Your task to perform on an android device: Search for "apple airpods pro" on bestbuy, select the first entry, add it to the cart, then select checkout. Image 0: 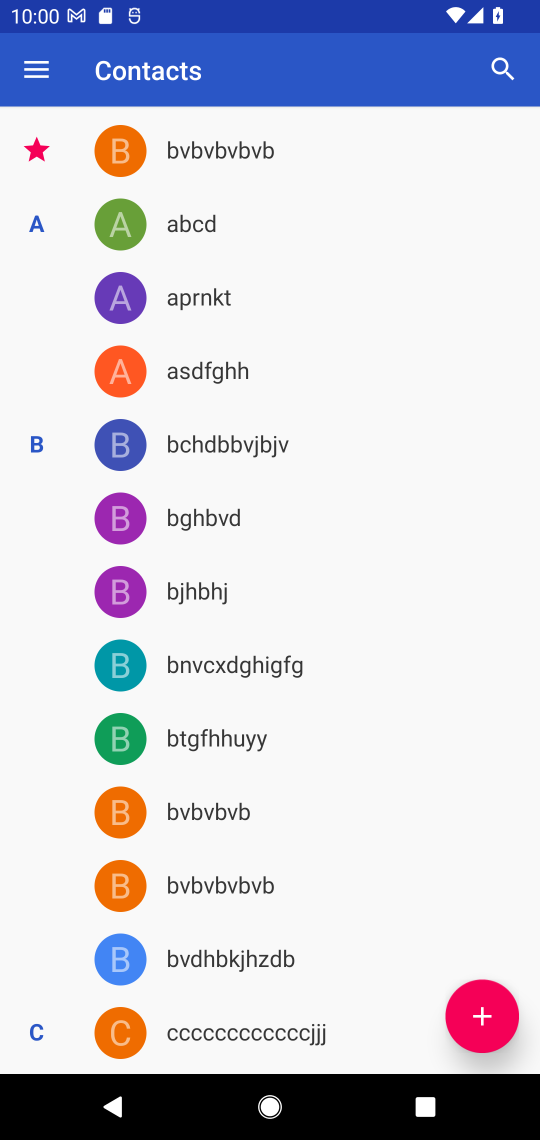
Step 0: press home button
Your task to perform on an android device: Search for "apple airpods pro" on bestbuy, select the first entry, add it to the cart, then select checkout. Image 1: 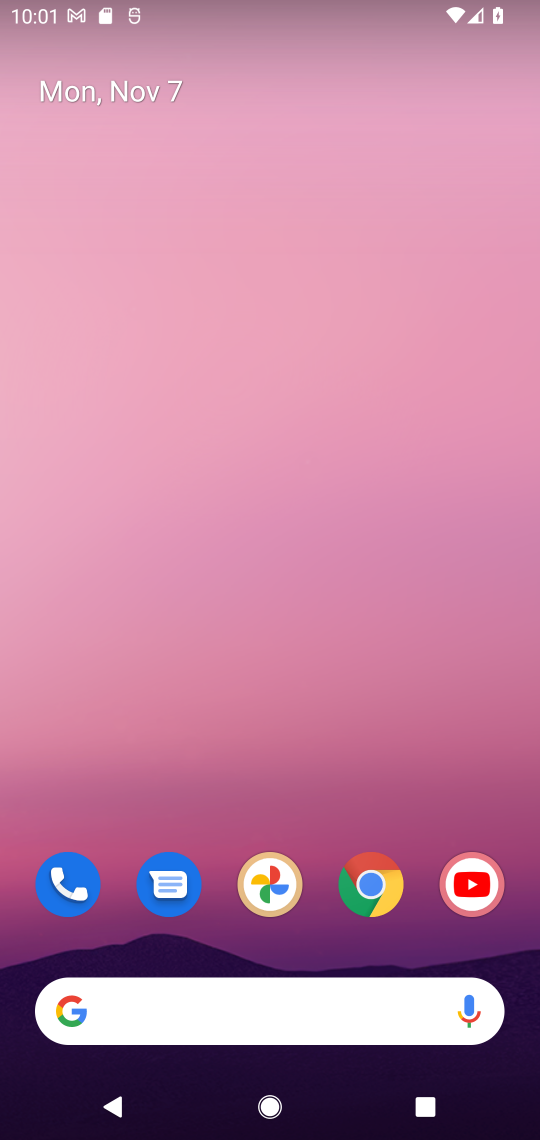
Step 1: click (398, 878)
Your task to perform on an android device: Search for "apple airpods pro" on bestbuy, select the first entry, add it to the cart, then select checkout. Image 2: 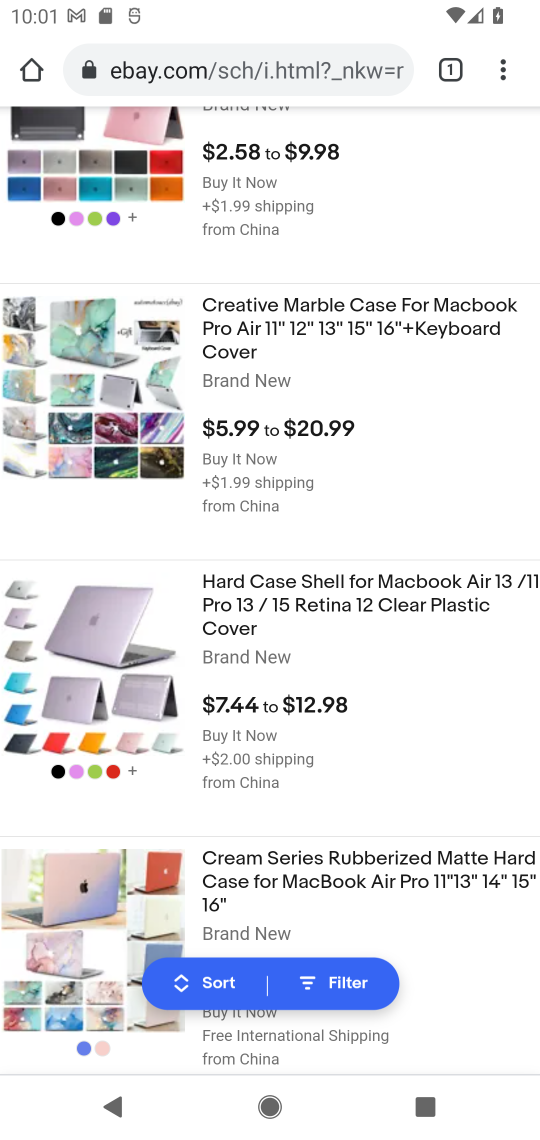
Step 2: click (27, 72)
Your task to perform on an android device: Search for "apple airpods pro" on bestbuy, select the first entry, add it to the cart, then select checkout. Image 3: 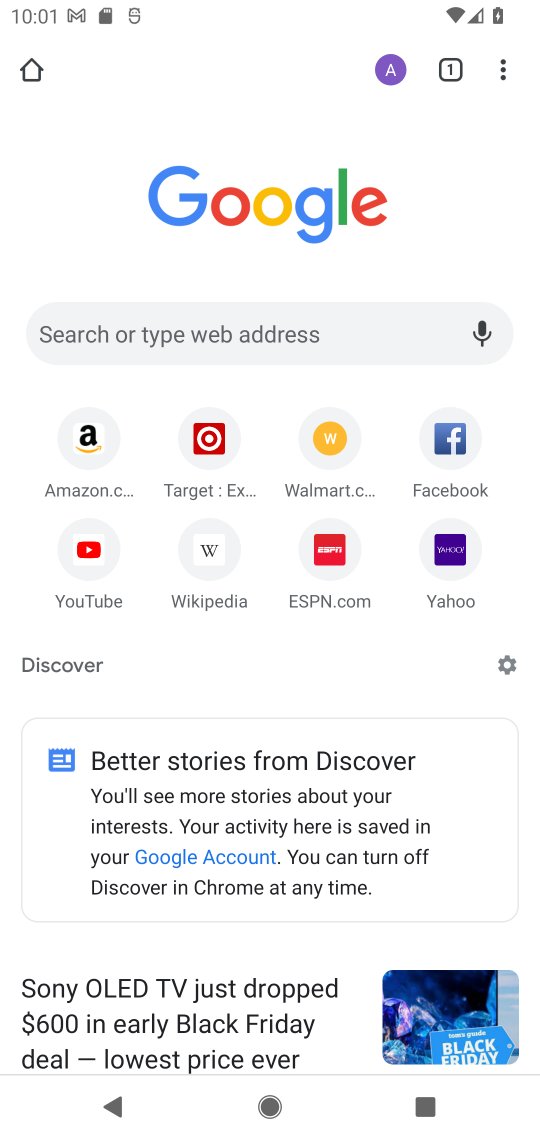
Step 3: click (241, 348)
Your task to perform on an android device: Search for "apple airpods pro" on bestbuy, select the first entry, add it to the cart, then select checkout. Image 4: 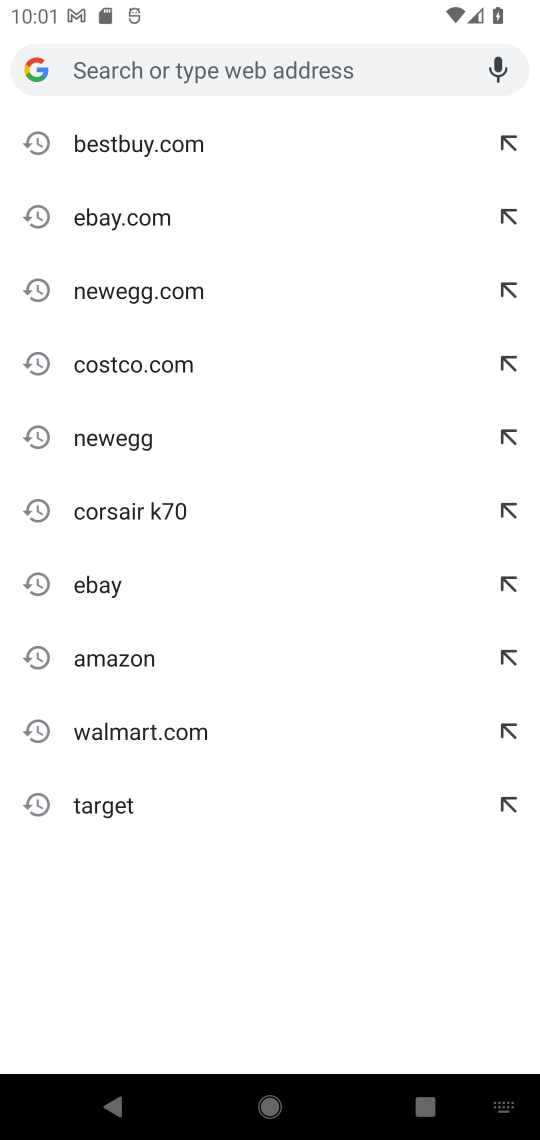
Step 4: click (186, 144)
Your task to perform on an android device: Search for "apple airpods pro" on bestbuy, select the first entry, add it to the cart, then select checkout. Image 5: 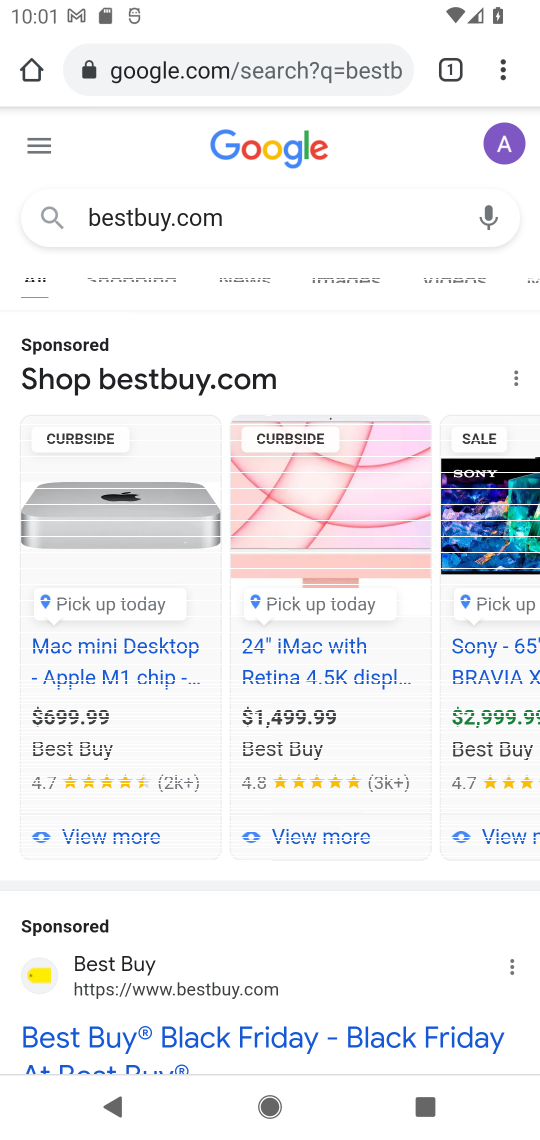
Step 5: click (219, 982)
Your task to perform on an android device: Search for "apple airpods pro" on bestbuy, select the first entry, add it to the cart, then select checkout. Image 6: 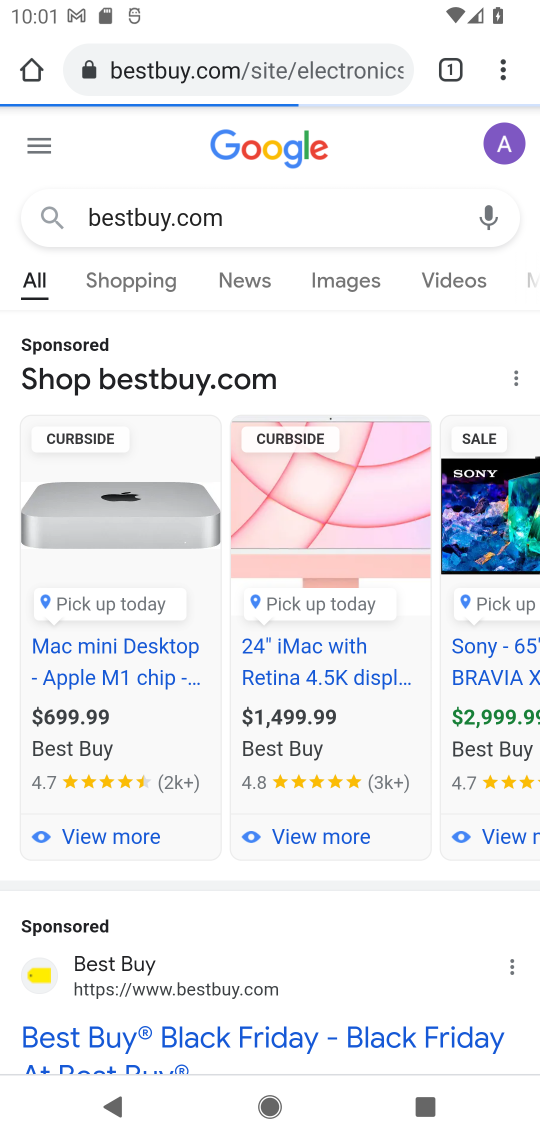
Step 6: click (140, 981)
Your task to perform on an android device: Search for "apple airpods pro" on bestbuy, select the first entry, add it to the cart, then select checkout. Image 7: 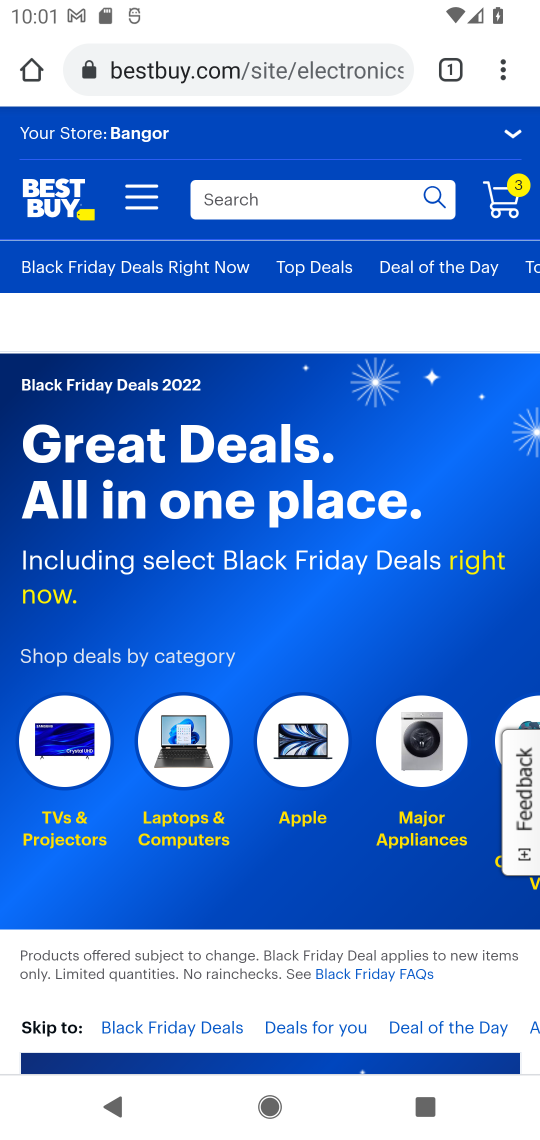
Step 7: click (321, 190)
Your task to perform on an android device: Search for "apple airpods pro" on bestbuy, select the first entry, add it to the cart, then select checkout. Image 8: 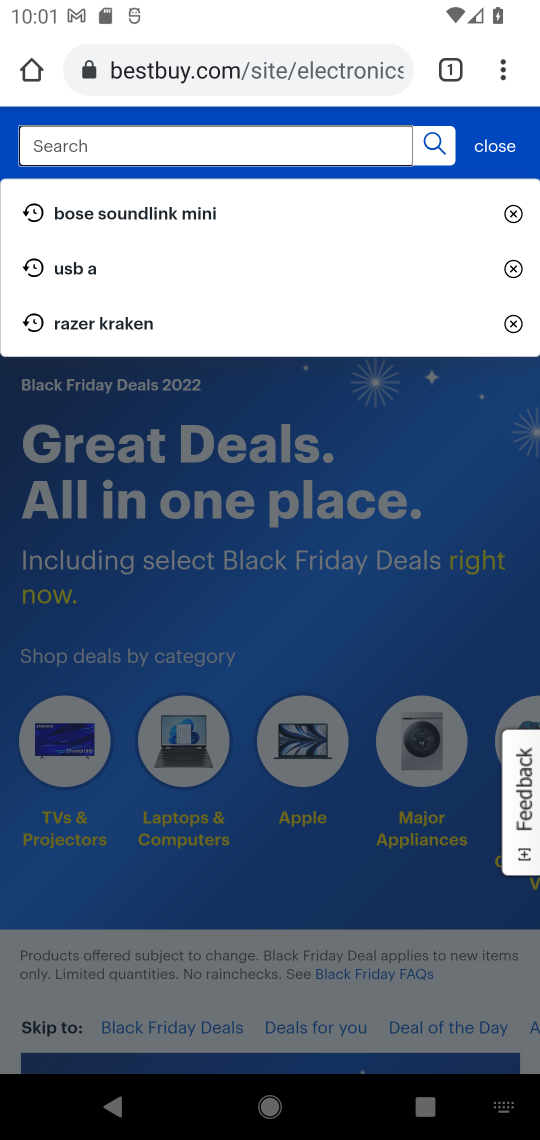
Step 8: type "apple airpods pro"
Your task to perform on an android device: Search for "apple airpods pro" on bestbuy, select the first entry, add it to the cart, then select checkout. Image 9: 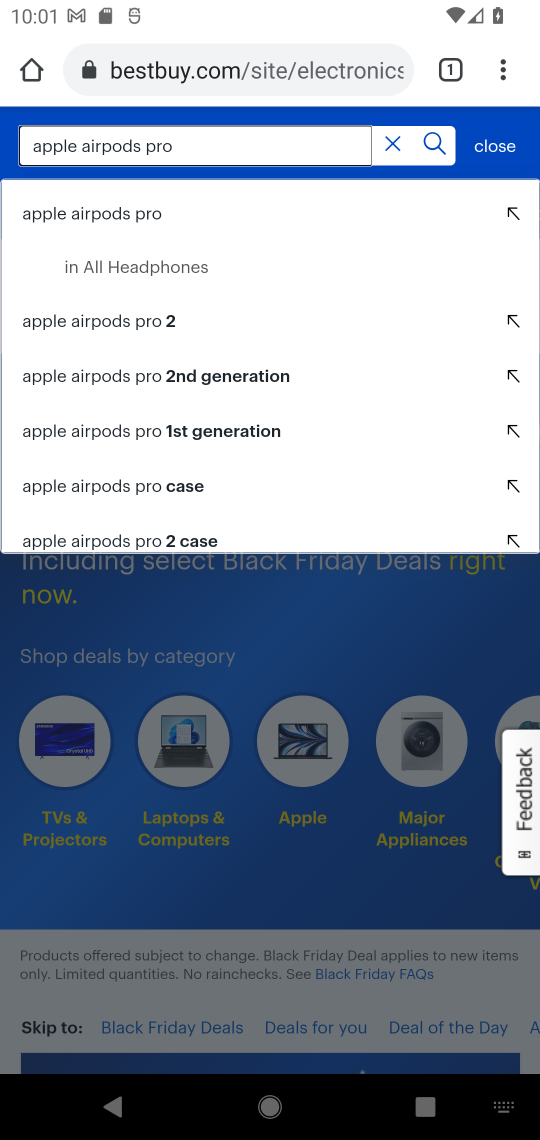
Step 9: click (141, 213)
Your task to perform on an android device: Search for "apple airpods pro" on bestbuy, select the first entry, add it to the cart, then select checkout. Image 10: 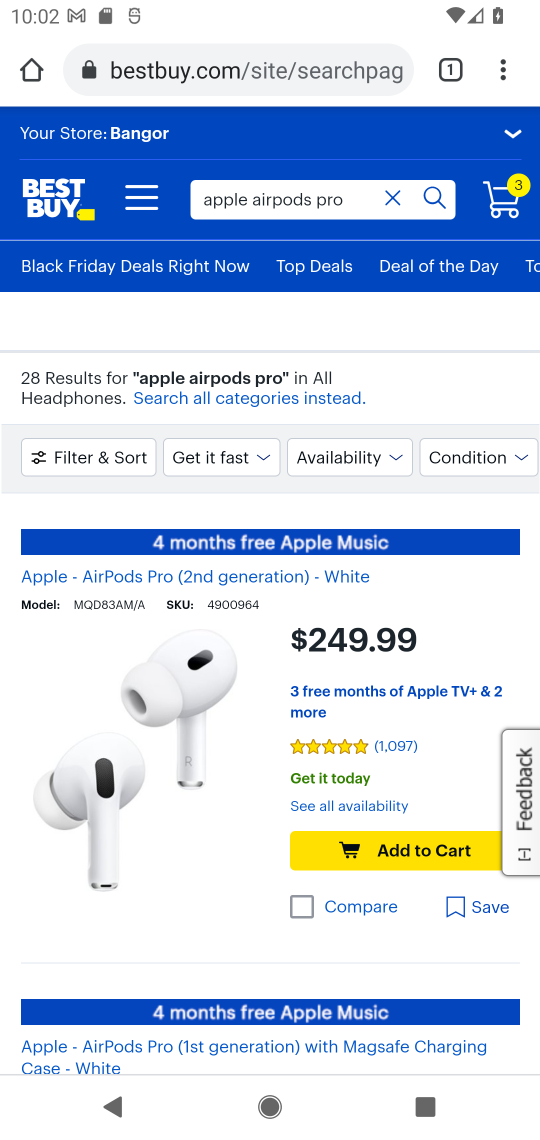
Step 10: click (161, 751)
Your task to perform on an android device: Search for "apple airpods pro" on bestbuy, select the first entry, add it to the cart, then select checkout. Image 11: 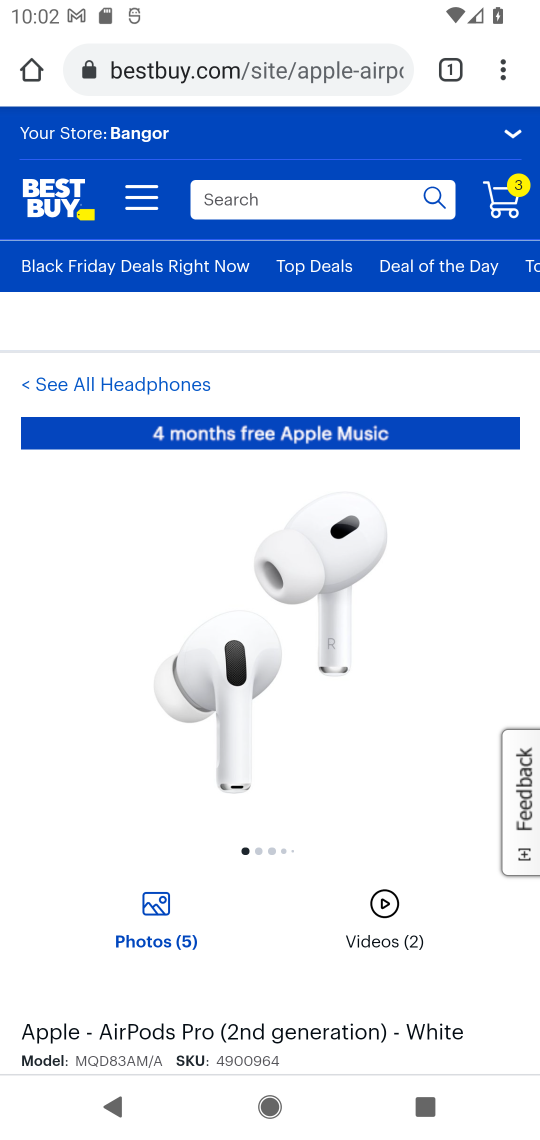
Step 11: drag from (277, 809) to (280, 260)
Your task to perform on an android device: Search for "apple airpods pro" on bestbuy, select the first entry, add it to the cart, then select checkout. Image 12: 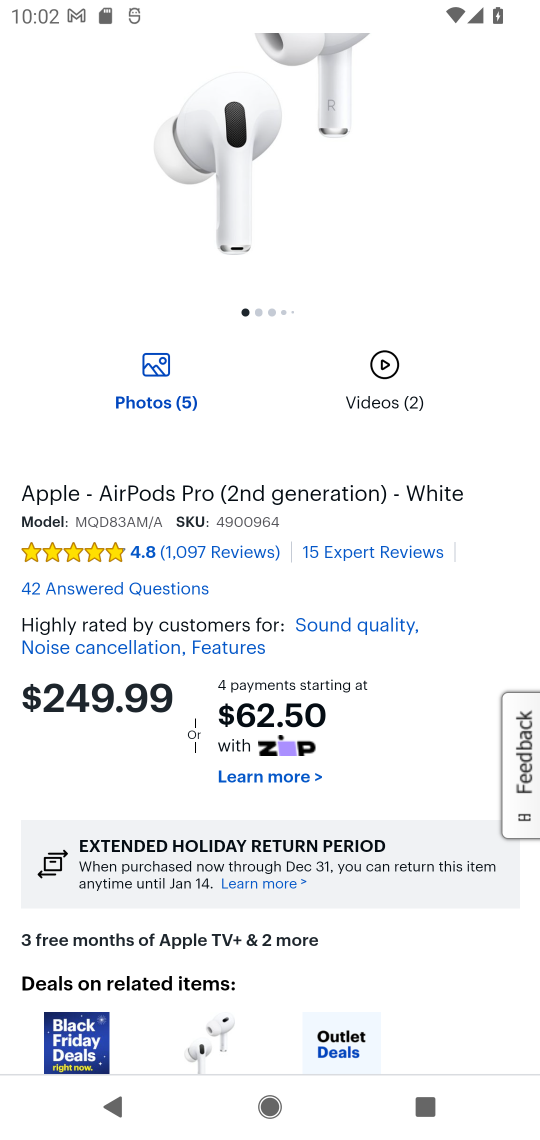
Step 12: drag from (414, 971) to (345, 363)
Your task to perform on an android device: Search for "apple airpods pro" on bestbuy, select the first entry, add it to the cart, then select checkout. Image 13: 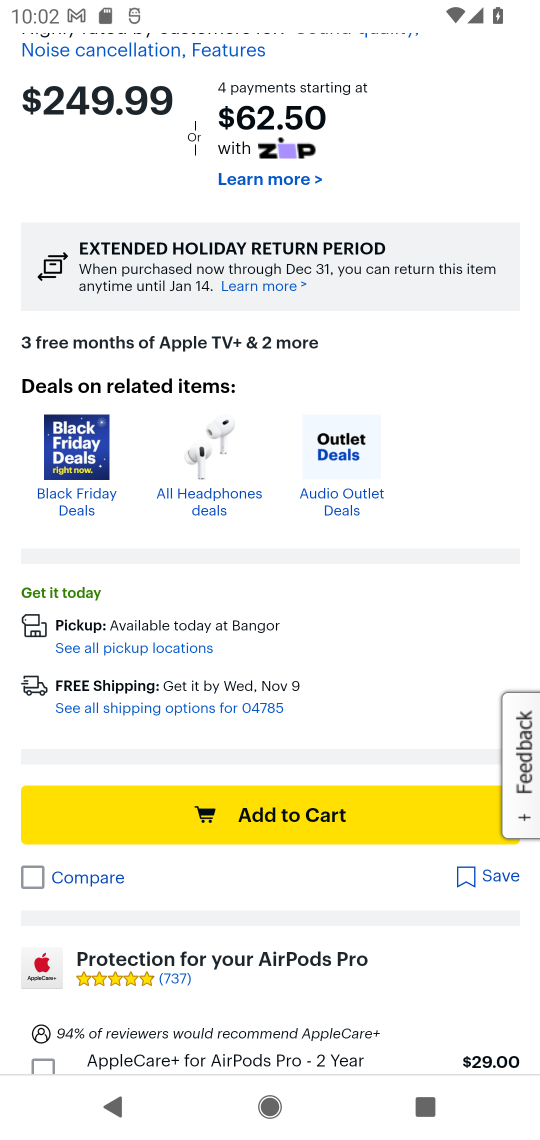
Step 13: click (297, 808)
Your task to perform on an android device: Search for "apple airpods pro" on bestbuy, select the first entry, add it to the cart, then select checkout. Image 14: 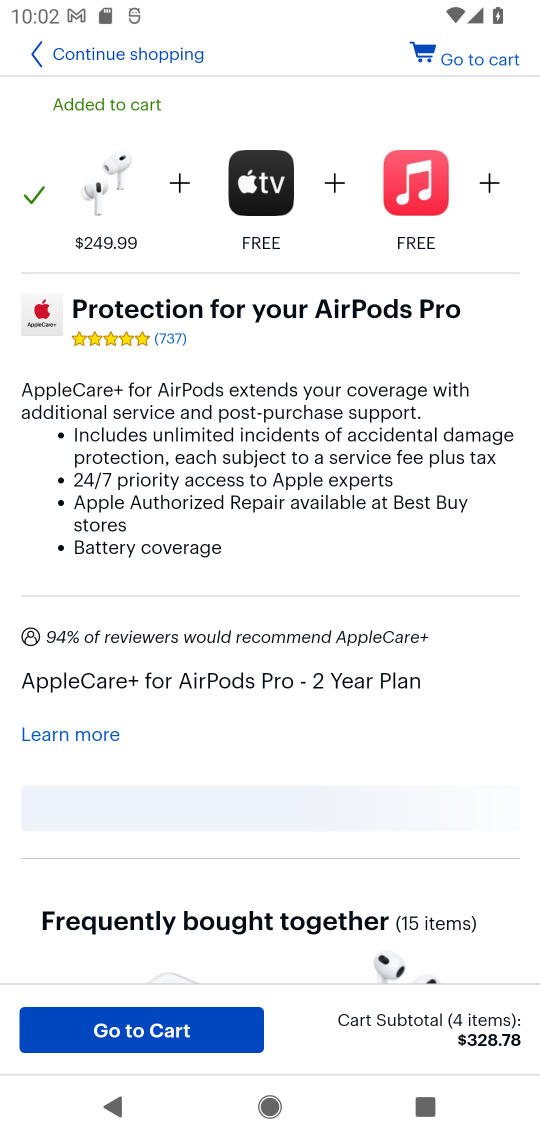
Step 14: click (185, 1019)
Your task to perform on an android device: Search for "apple airpods pro" on bestbuy, select the first entry, add it to the cart, then select checkout. Image 15: 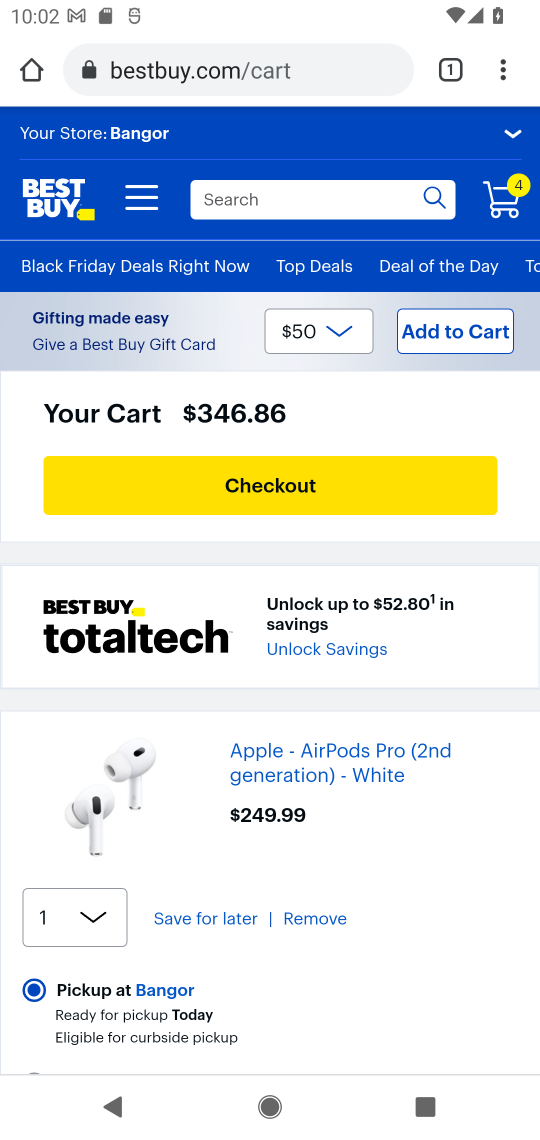
Step 15: click (277, 482)
Your task to perform on an android device: Search for "apple airpods pro" on bestbuy, select the first entry, add it to the cart, then select checkout. Image 16: 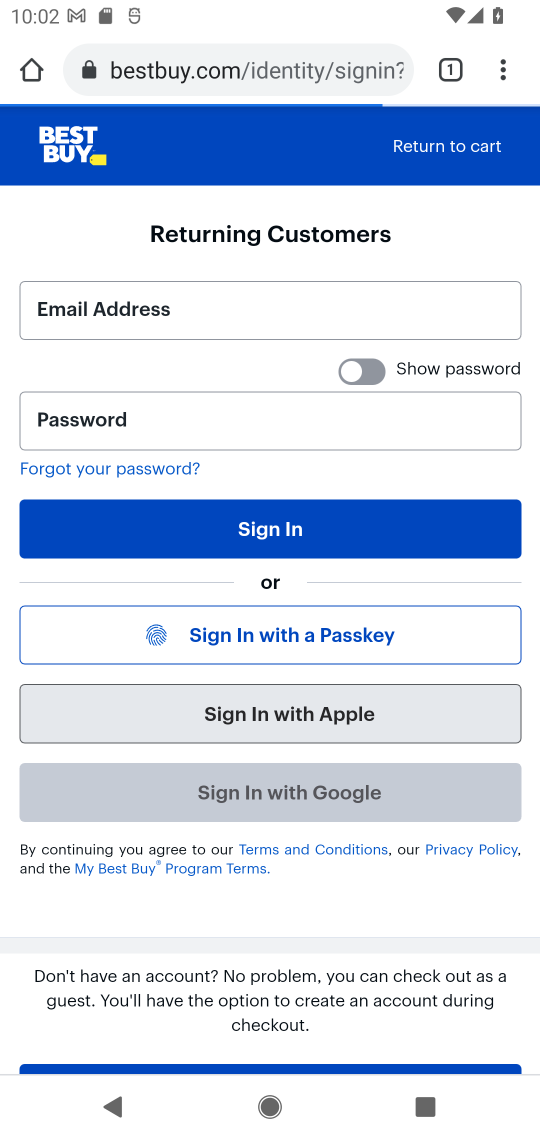
Step 16: task complete